Your task to perform on an android device: Go to battery settings Image 0: 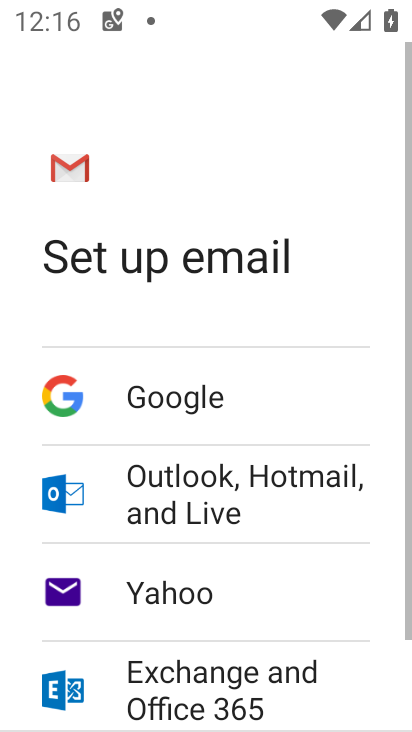
Step 0: press back button
Your task to perform on an android device: Go to battery settings Image 1: 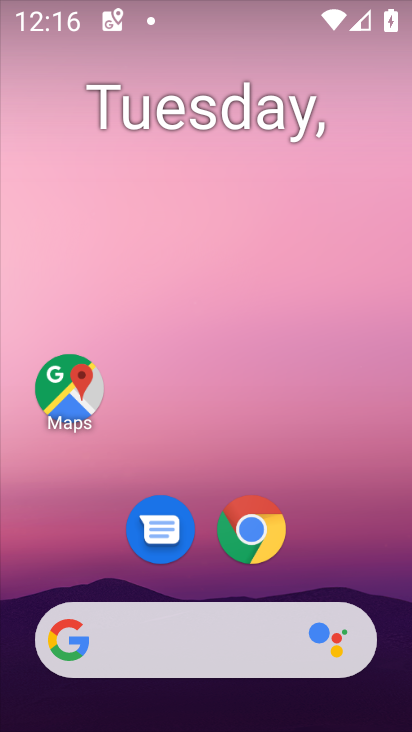
Step 1: drag from (232, 683) to (297, 175)
Your task to perform on an android device: Go to battery settings Image 2: 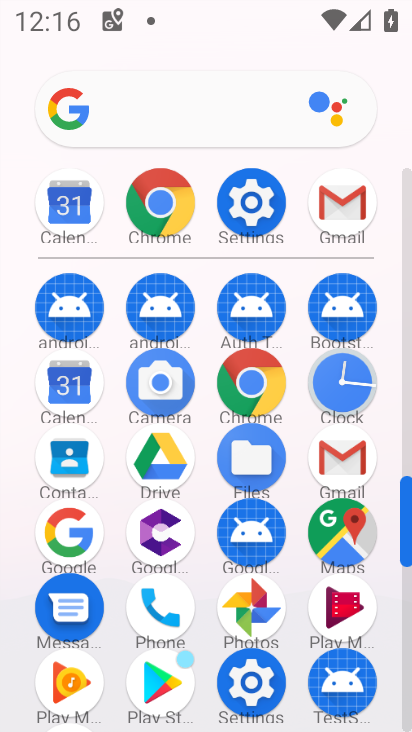
Step 2: click (251, 222)
Your task to perform on an android device: Go to battery settings Image 3: 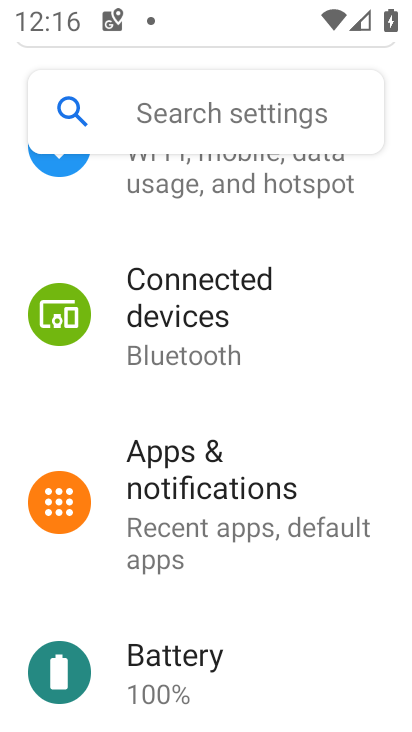
Step 3: click (146, 666)
Your task to perform on an android device: Go to battery settings Image 4: 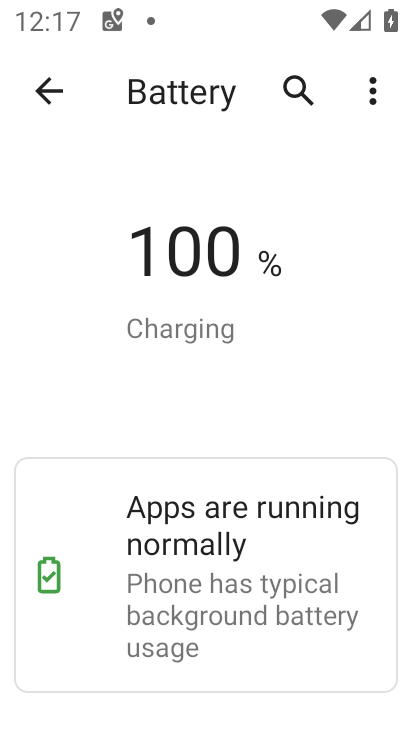
Step 4: task complete